Your task to perform on an android device: Clear the shopping cart on costco. Add "logitech g910" to the cart on costco Image 0: 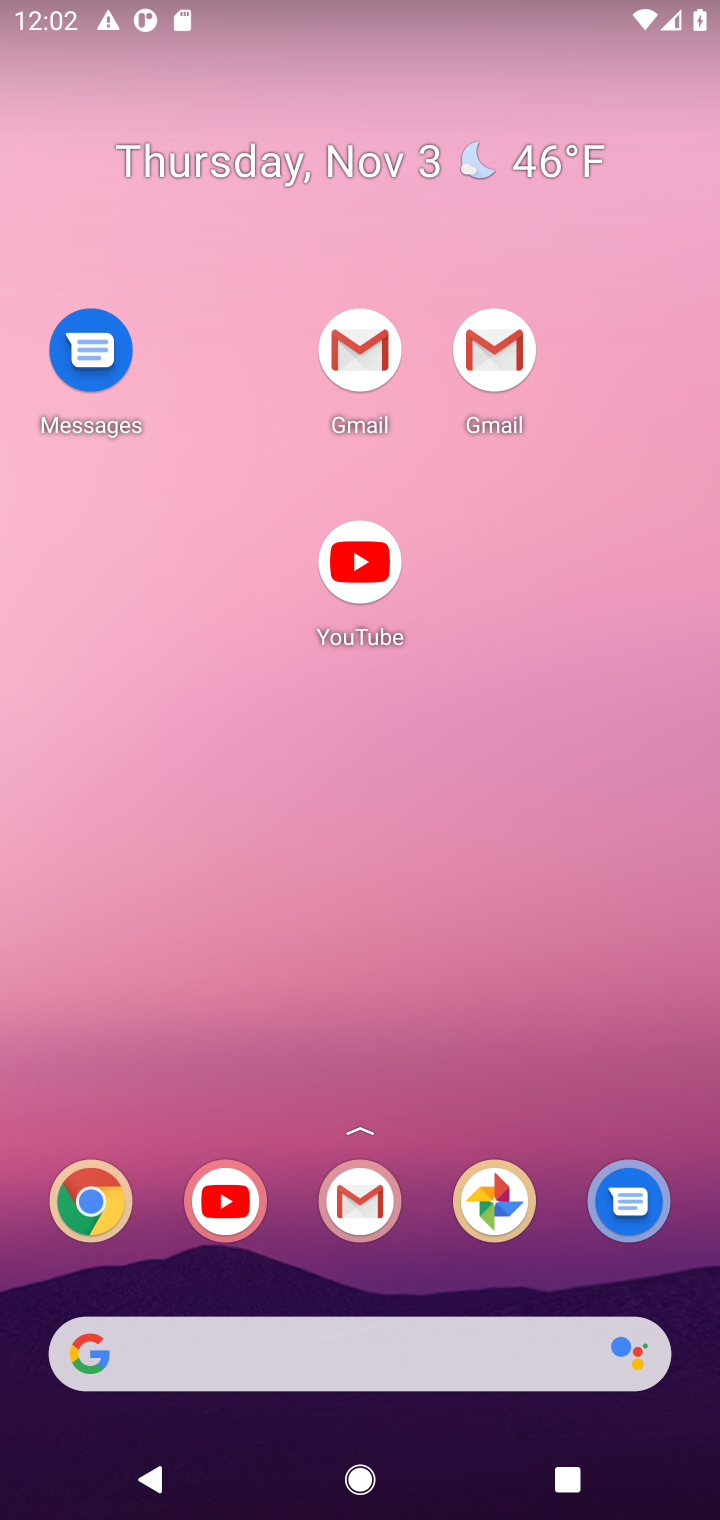
Step 0: drag from (426, 1295) to (546, 306)
Your task to perform on an android device: Clear the shopping cart on costco. Add "logitech g910" to the cart on costco Image 1: 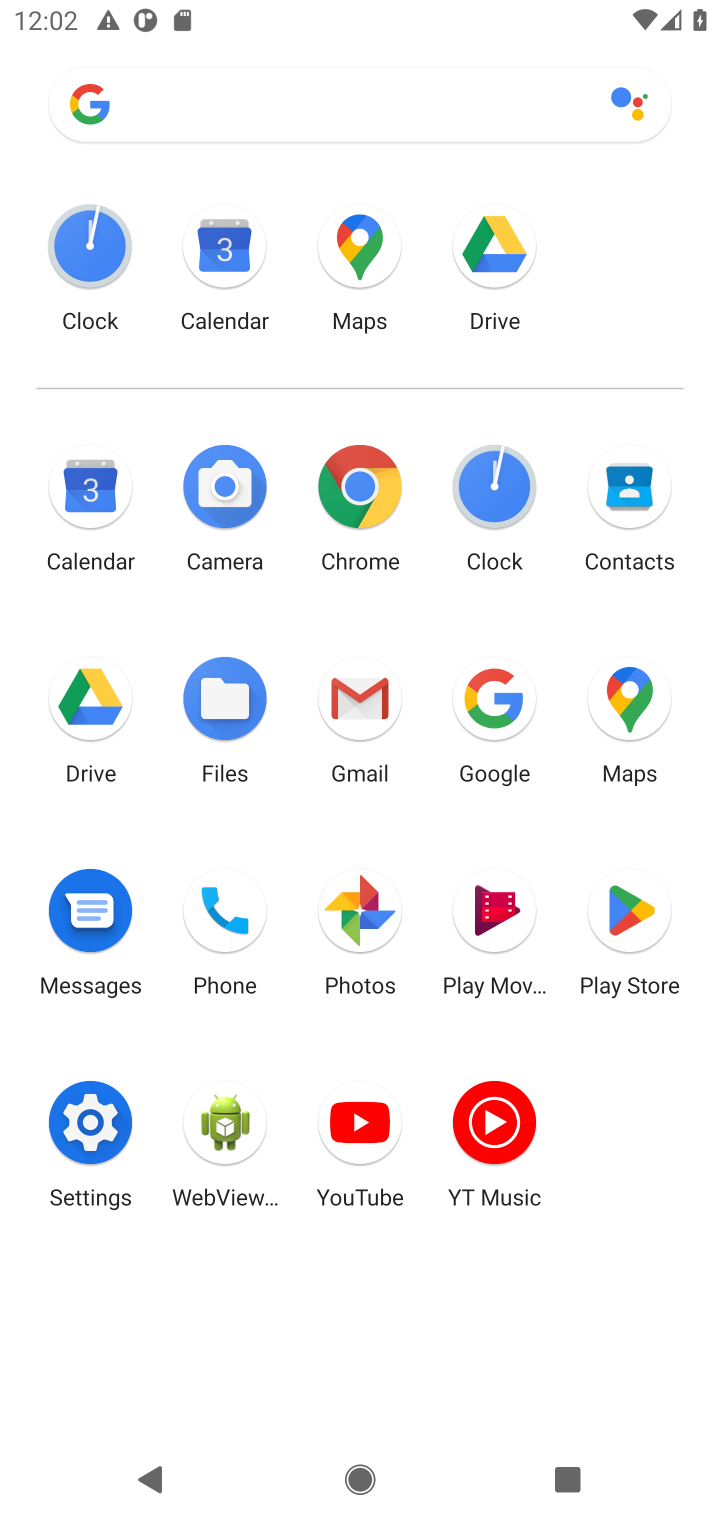
Step 1: click (356, 489)
Your task to perform on an android device: Clear the shopping cart on costco. Add "logitech g910" to the cart on costco Image 2: 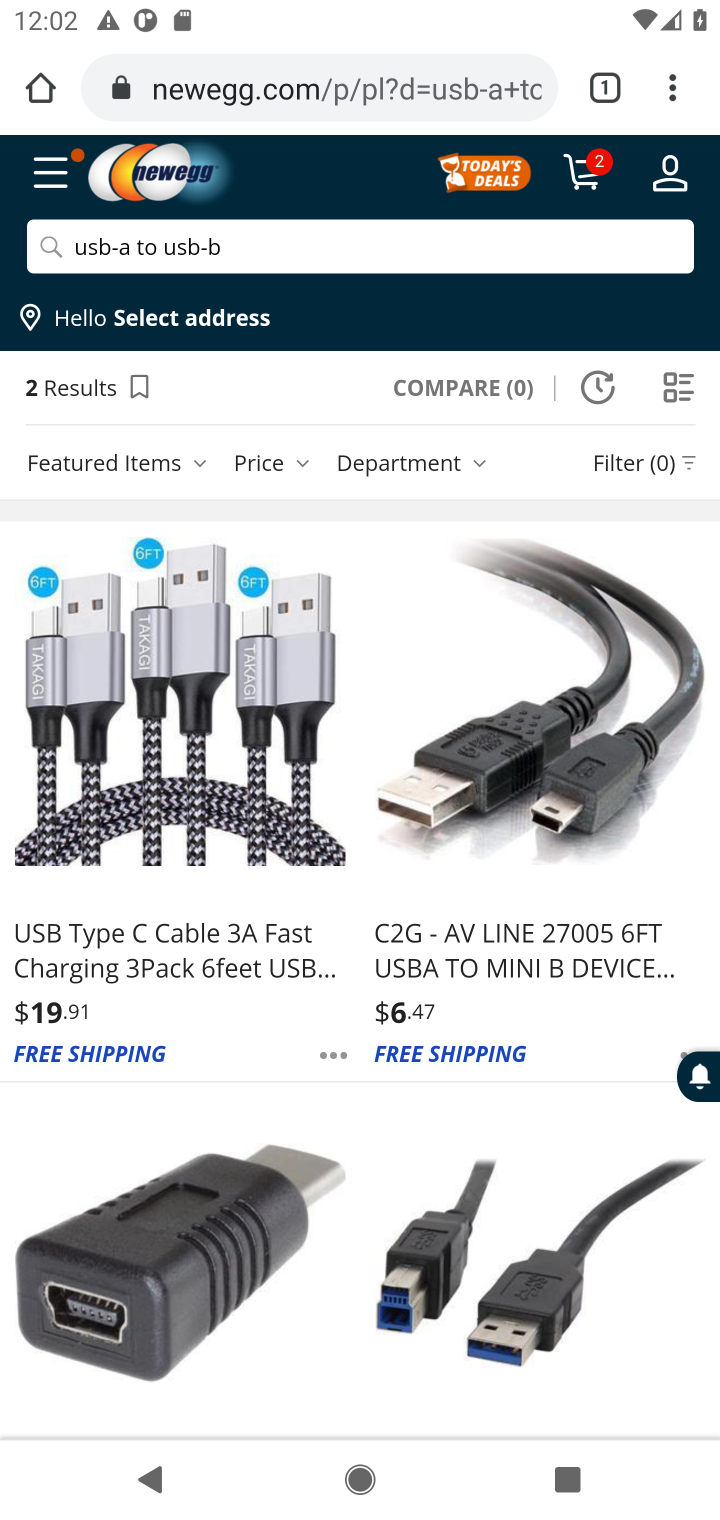
Step 2: click (429, 80)
Your task to perform on an android device: Clear the shopping cart on costco. Add "logitech g910" to the cart on costco Image 3: 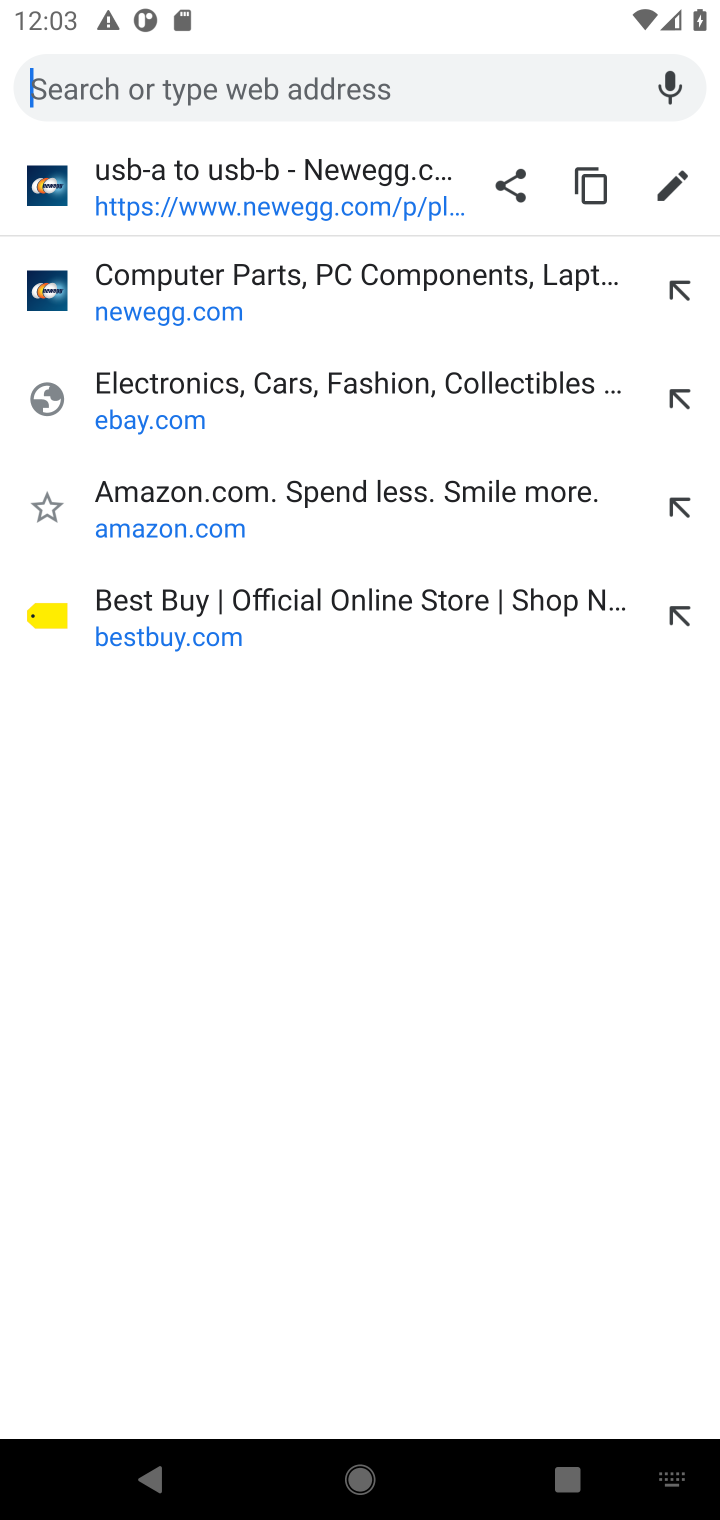
Step 3: type "costco.com"
Your task to perform on an android device: Clear the shopping cart on costco. Add "logitech g910" to the cart on costco Image 4: 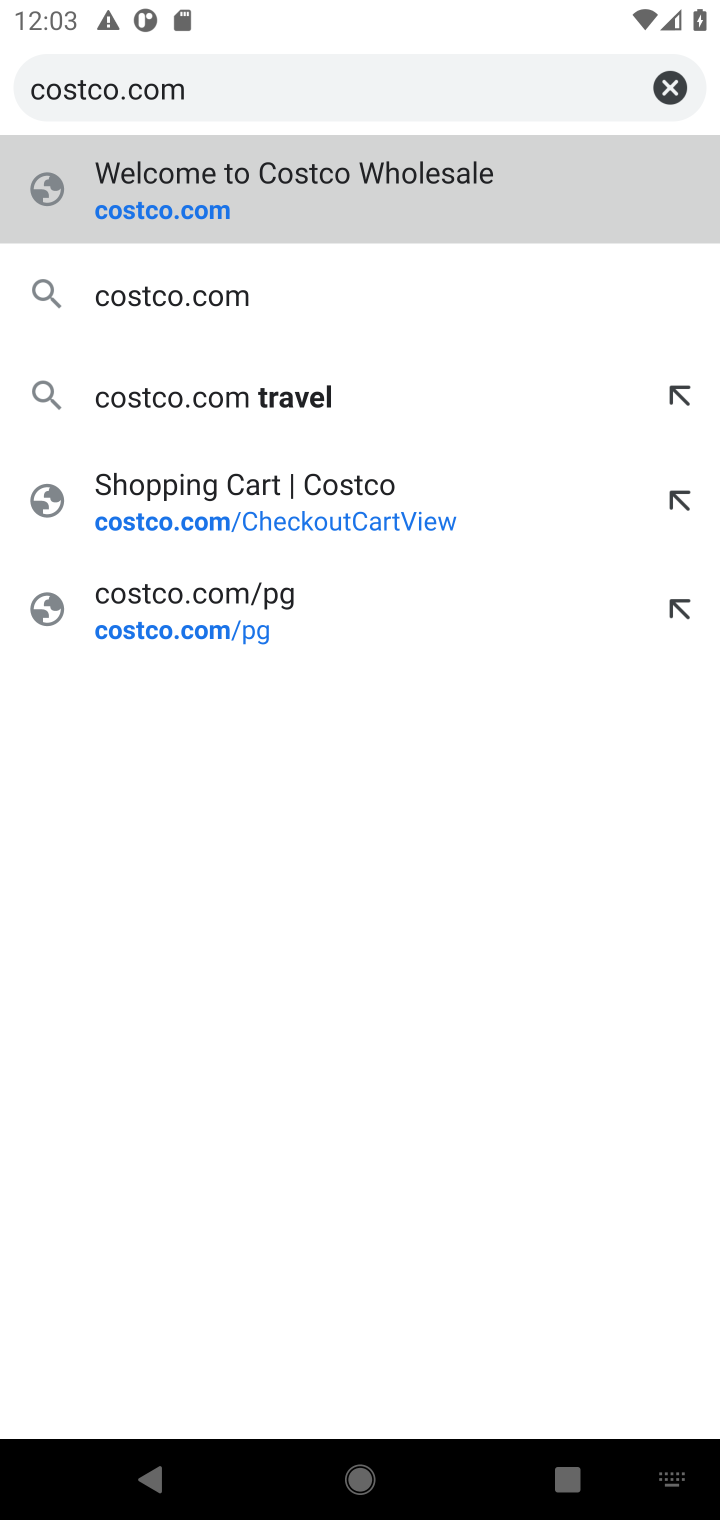
Step 4: press enter
Your task to perform on an android device: Clear the shopping cart on costco. Add "logitech g910" to the cart on costco Image 5: 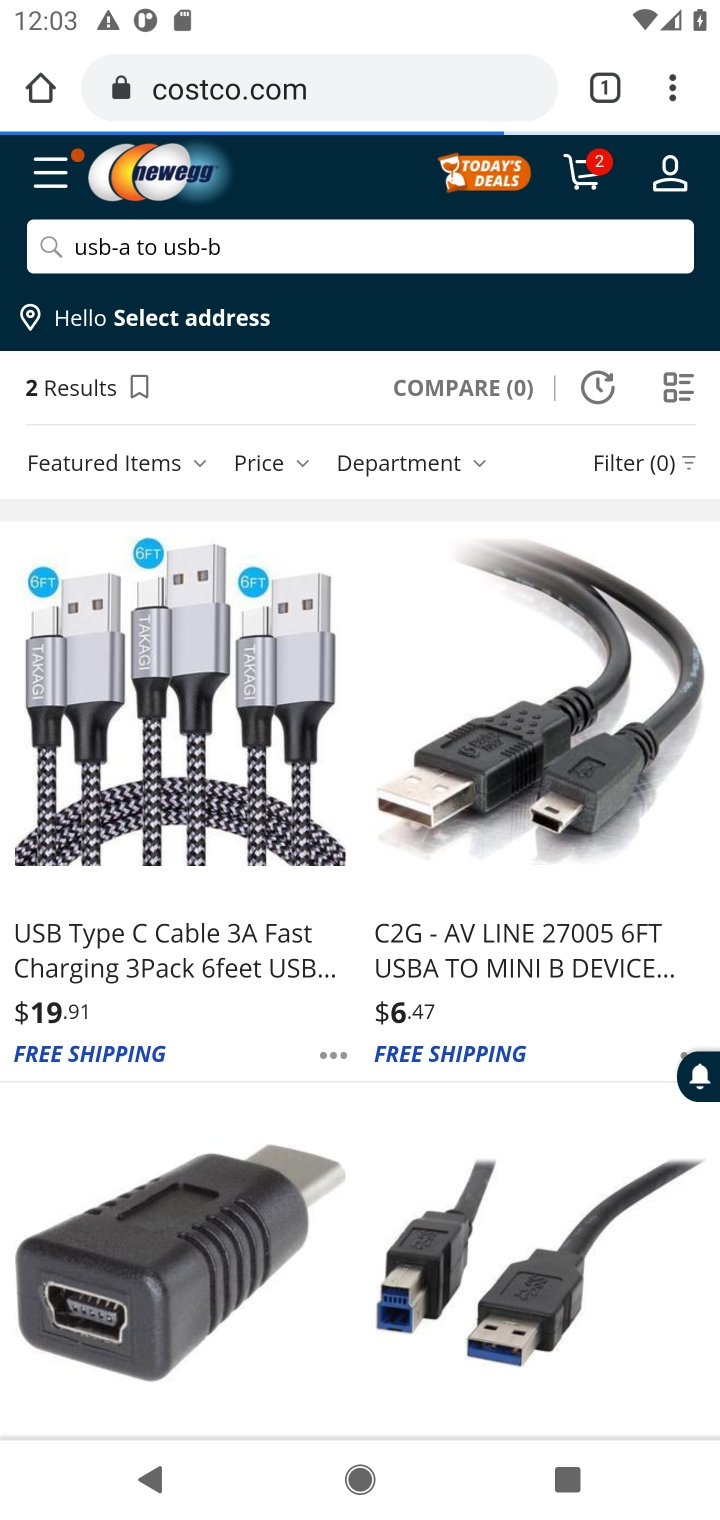
Step 5: press enter
Your task to perform on an android device: Clear the shopping cart on costco. Add "logitech g910" to the cart on costco Image 6: 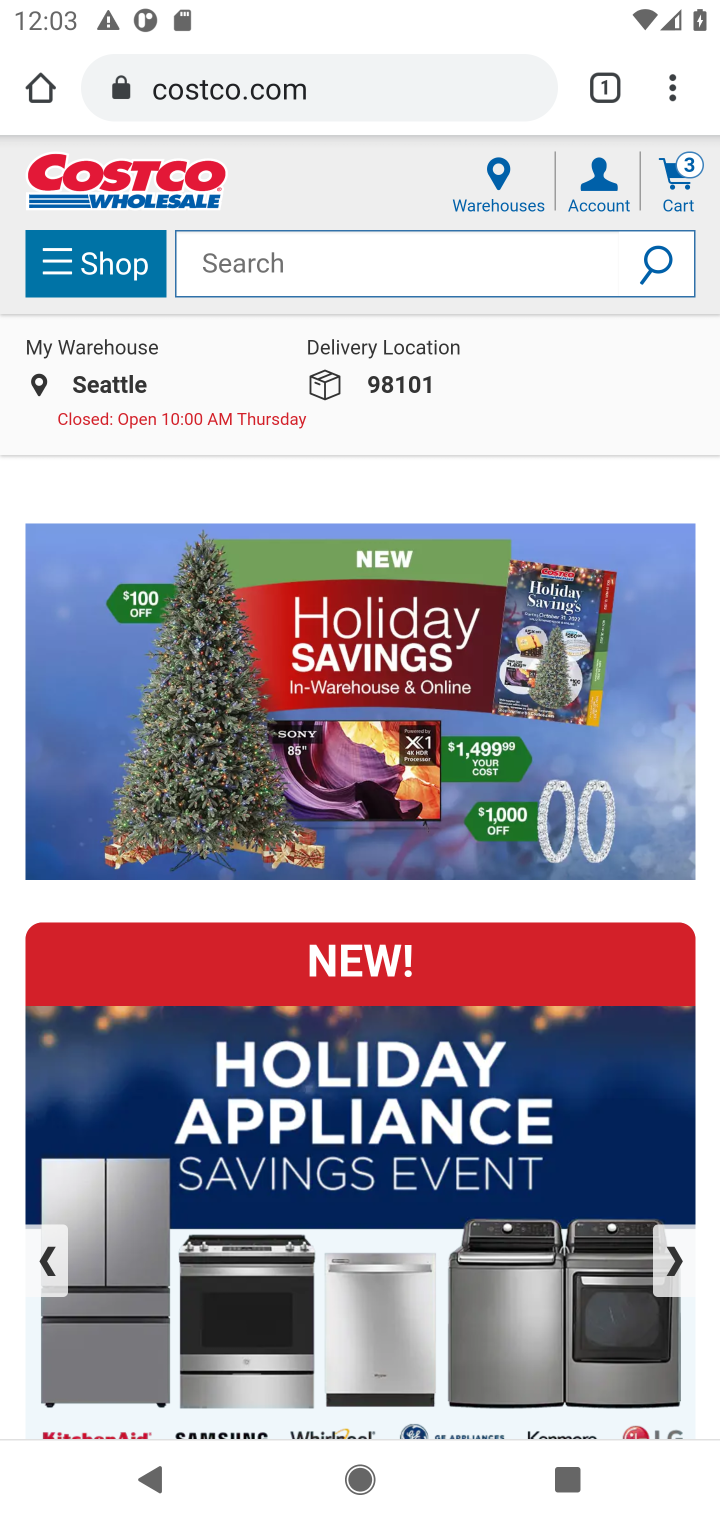
Step 6: click (672, 161)
Your task to perform on an android device: Clear the shopping cart on costco. Add "logitech g910" to the cart on costco Image 7: 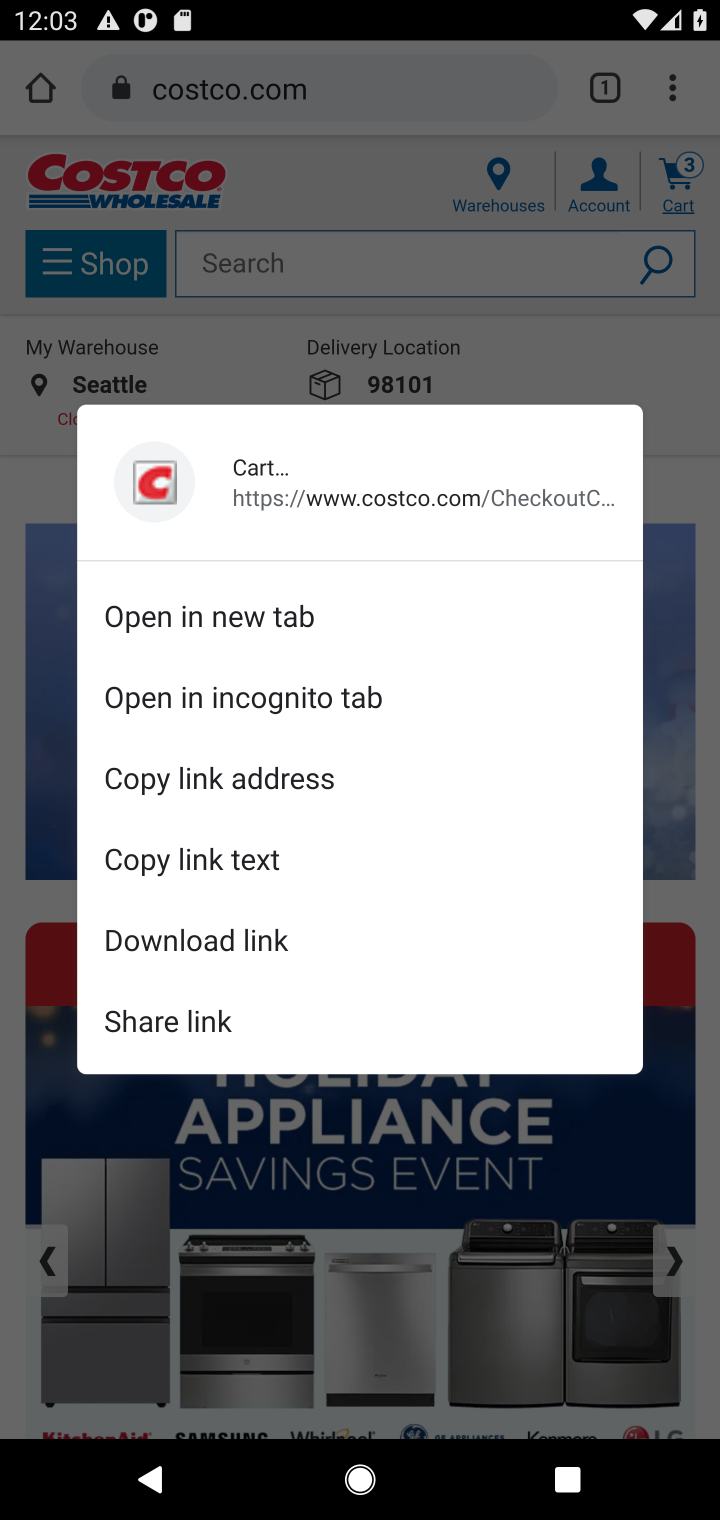
Step 7: click (680, 172)
Your task to perform on an android device: Clear the shopping cart on costco. Add "logitech g910" to the cart on costco Image 8: 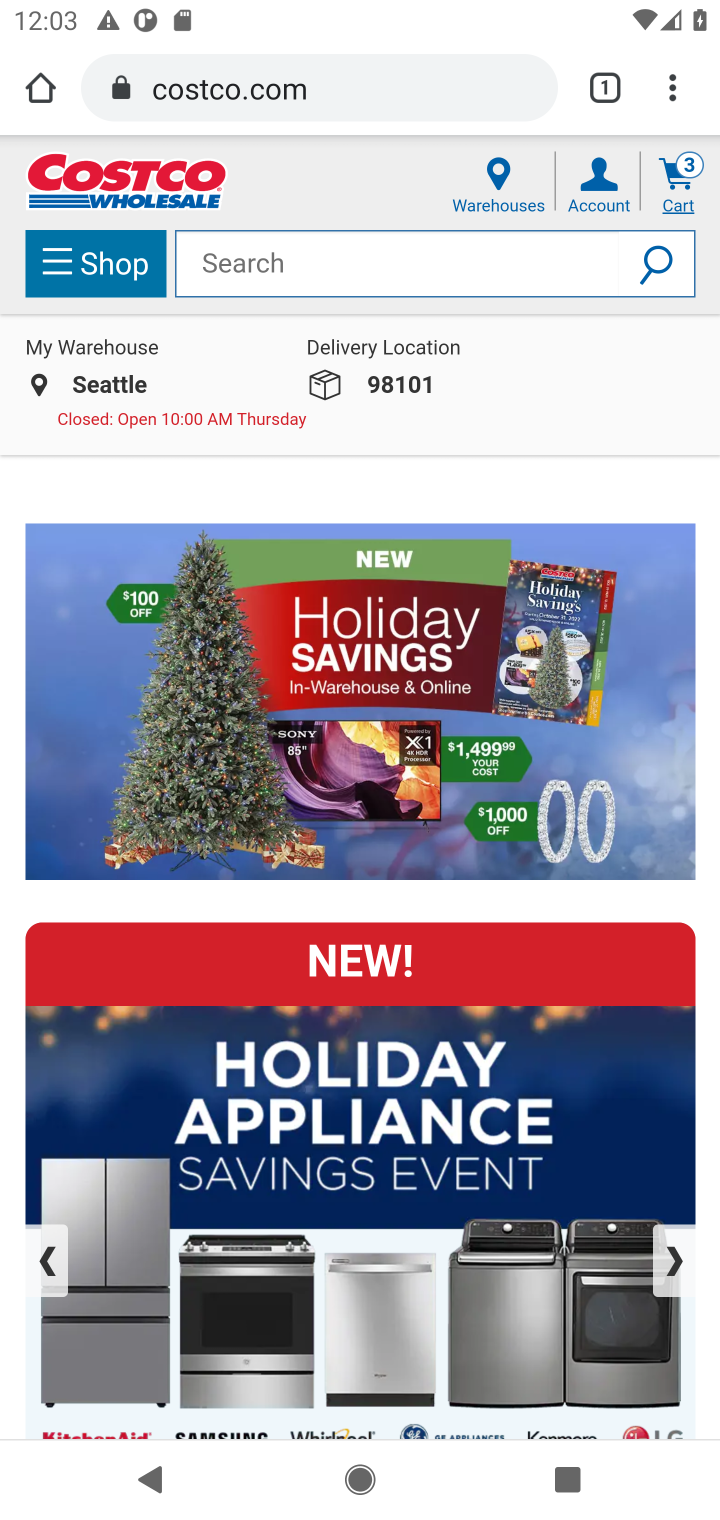
Step 8: click (680, 172)
Your task to perform on an android device: Clear the shopping cart on costco. Add "logitech g910" to the cart on costco Image 9: 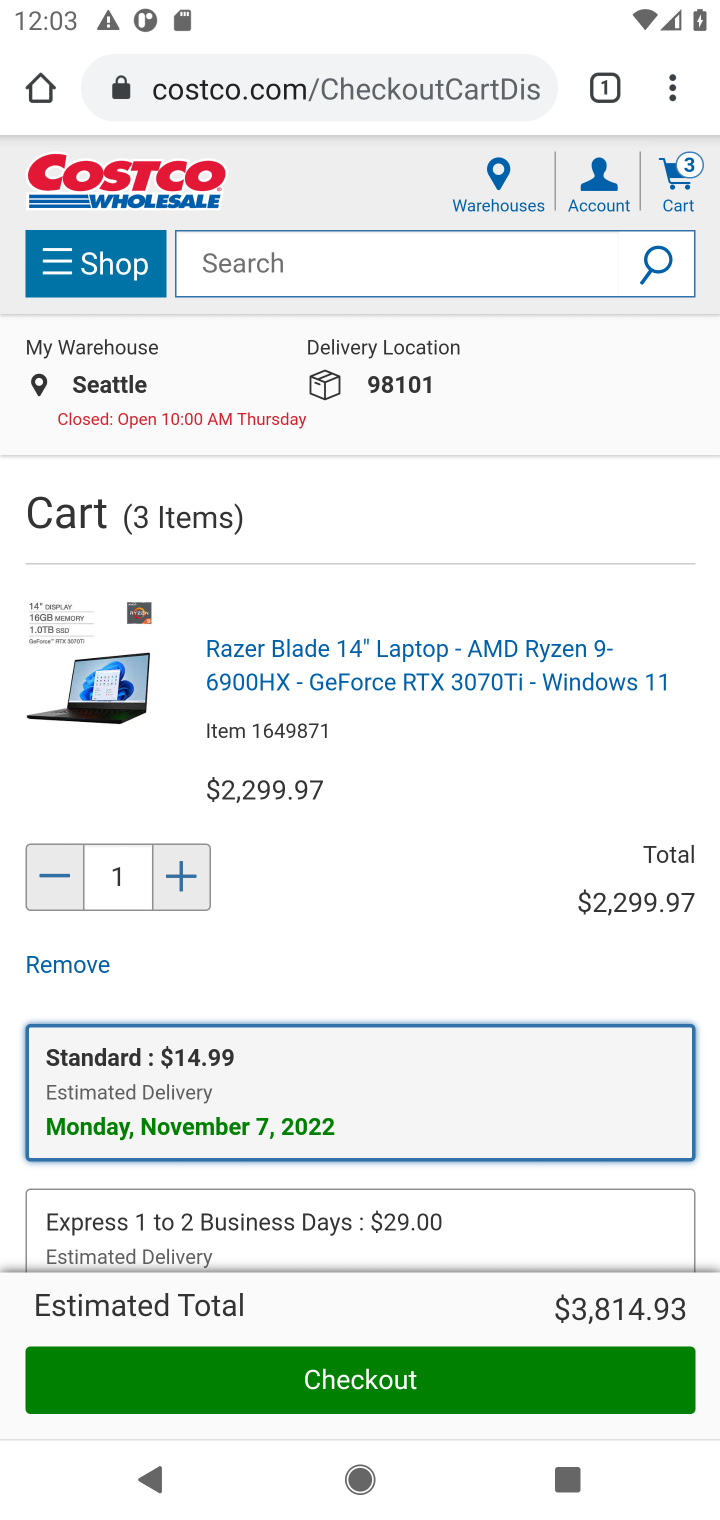
Step 9: click (50, 963)
Your task to perform on an android device: Clear the shopping cart on costco. Add "logitech g910" to the cart on costco Image 10: 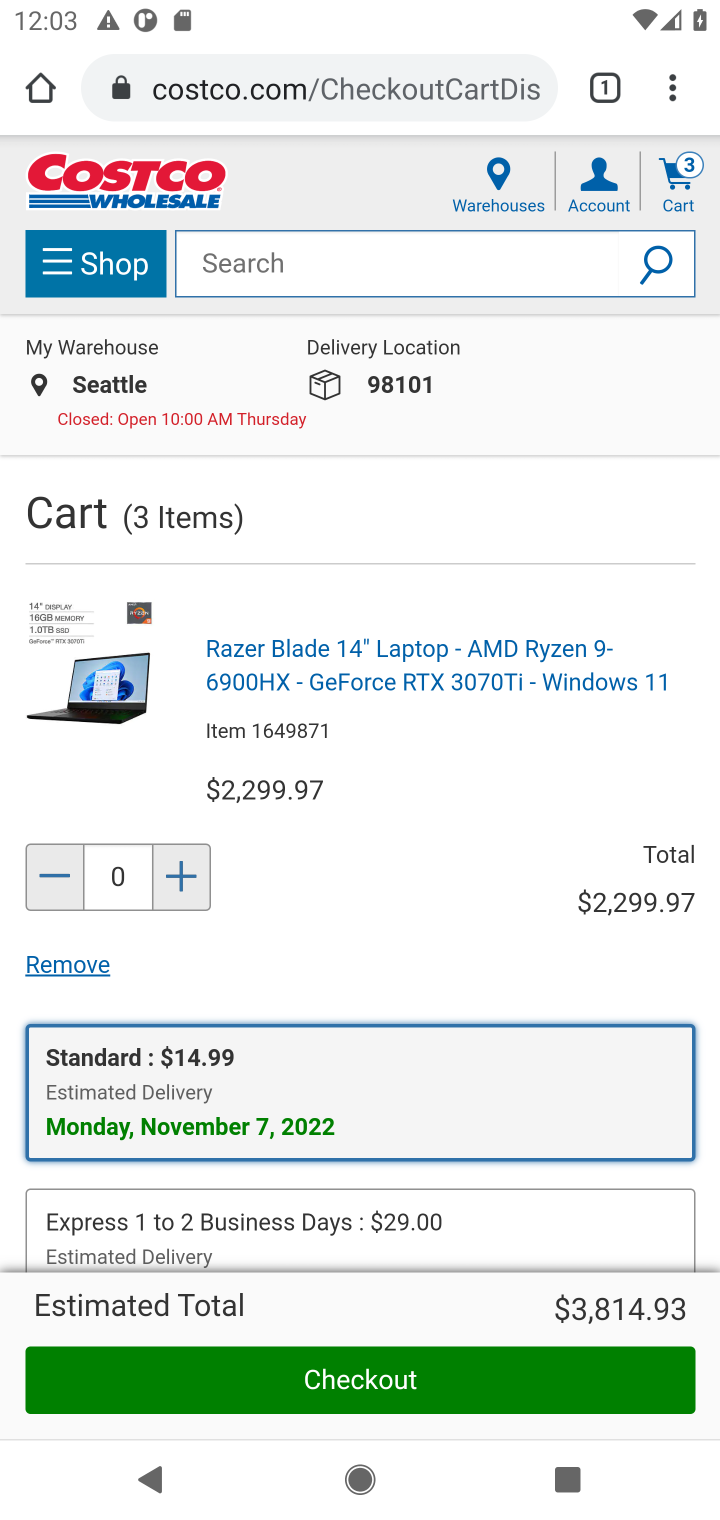
Step 10: click (68, 963)
Your task to perform on an android device: Clear the shopping cart on costco. Add "logitech g910" to the cart on costco Image 11: 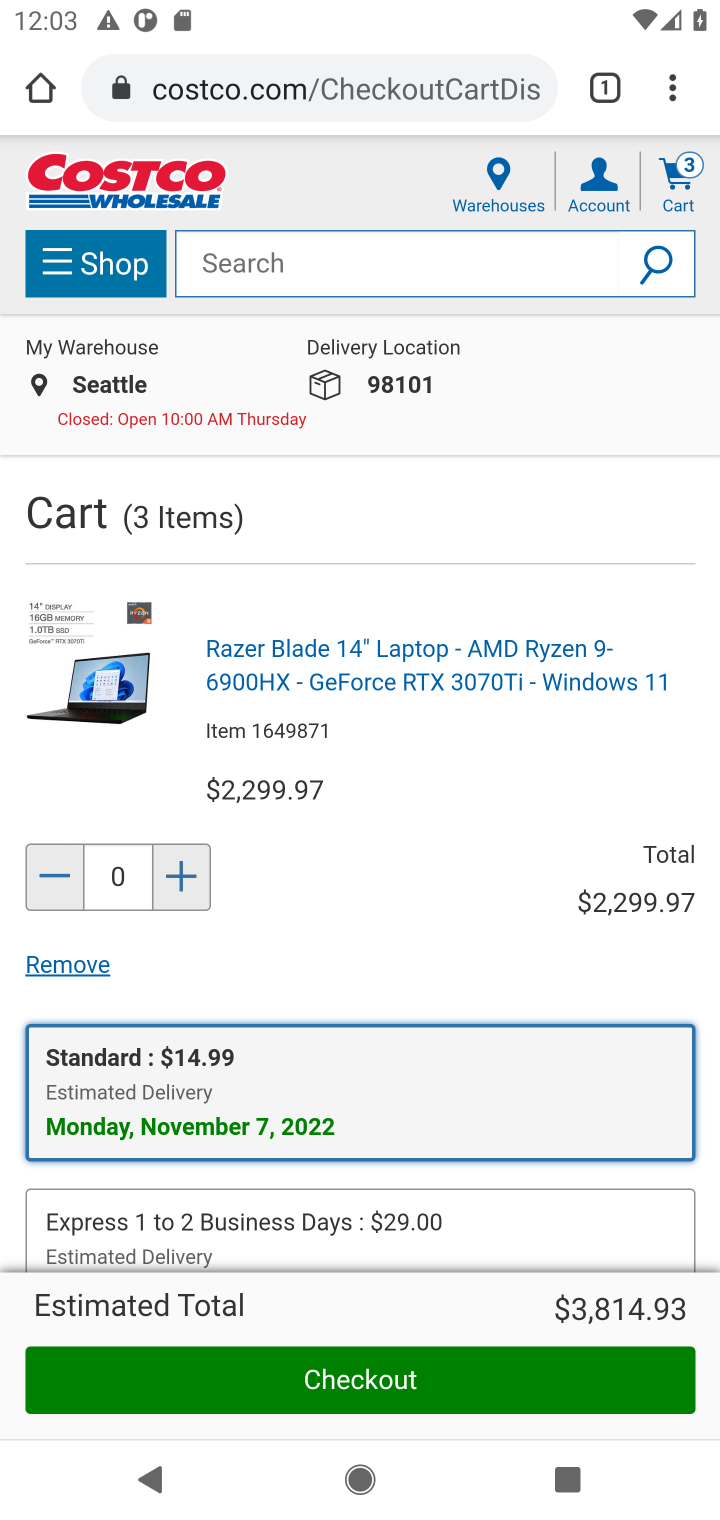
Step 11: drag from (357, 934) to (439, 402)
Your task to perform on an android device: Clear the shopping cart on costco. Add "logitech g910" to the cart on costco Image 12: 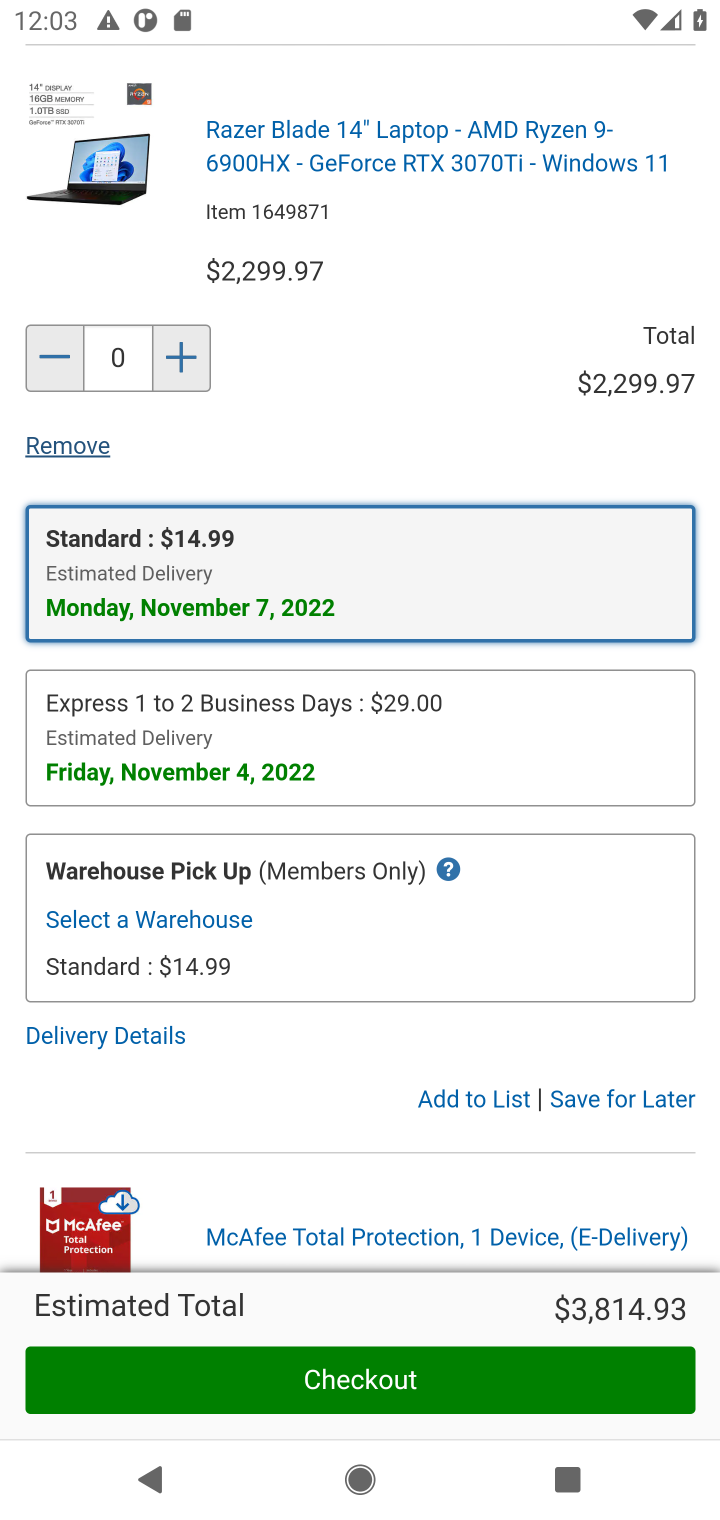
Step 12: drag from (156, 405) to (197, 823)
Your task to perform on an android device: Clear the shopping cart on costco. Add "logitech g910" to the cart on costco Image 13: 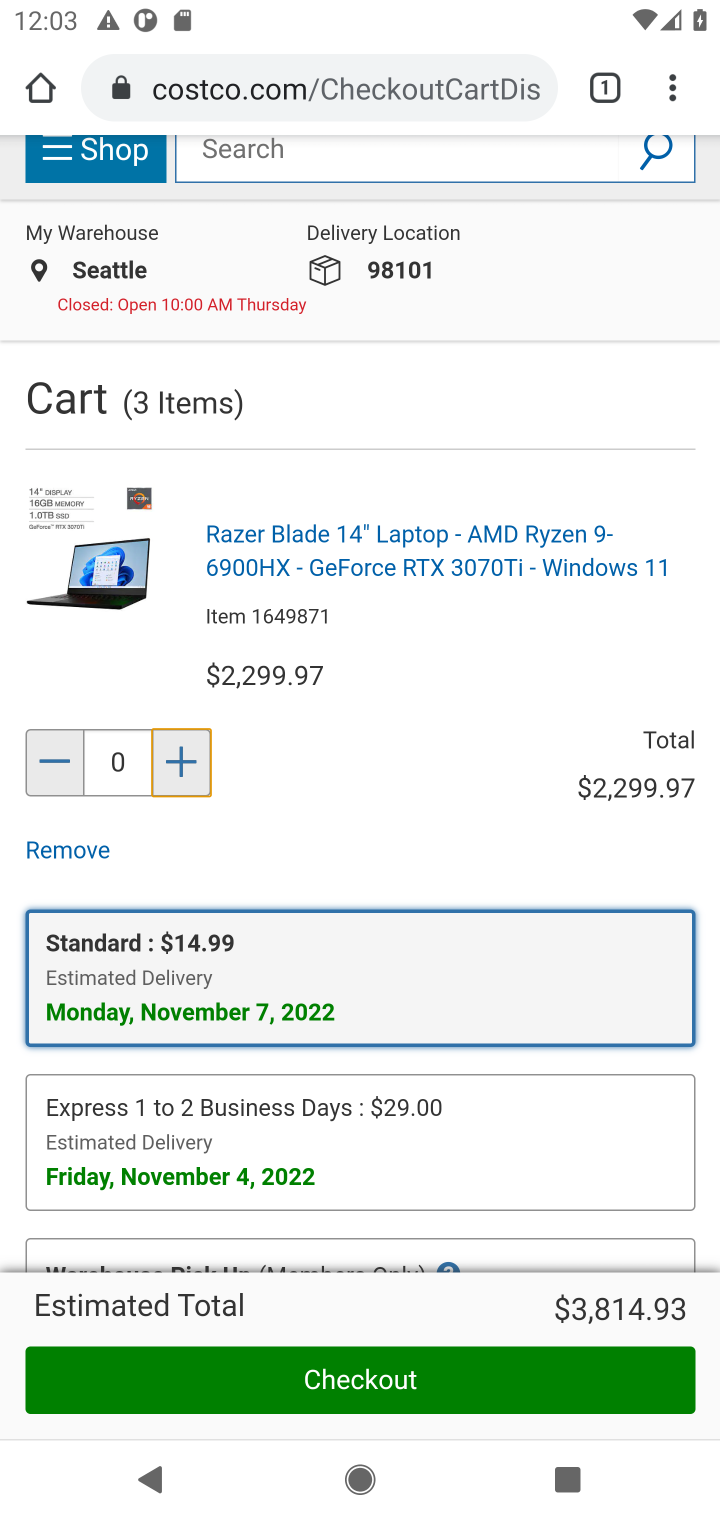
Step 13: click (83, 867)
Your task to perform on an android device: Clear the shopping cart on costco. Add "logitech g910" to the cart on costco Image 14: 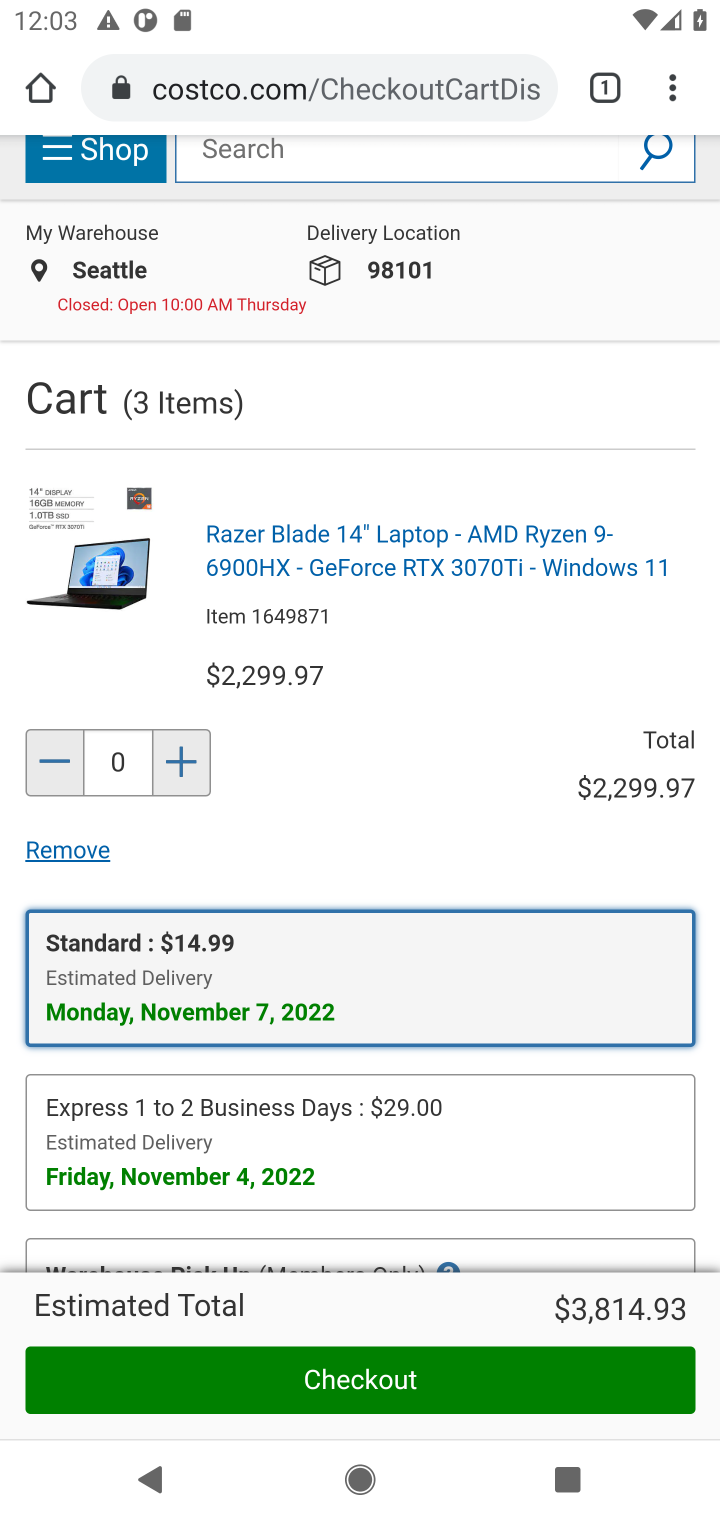
Step 14: click (83, 867)
Your task to perform on an android device: Clear the shopping cart on costco. Add "logitech g910" to the cart on costco Image 15: 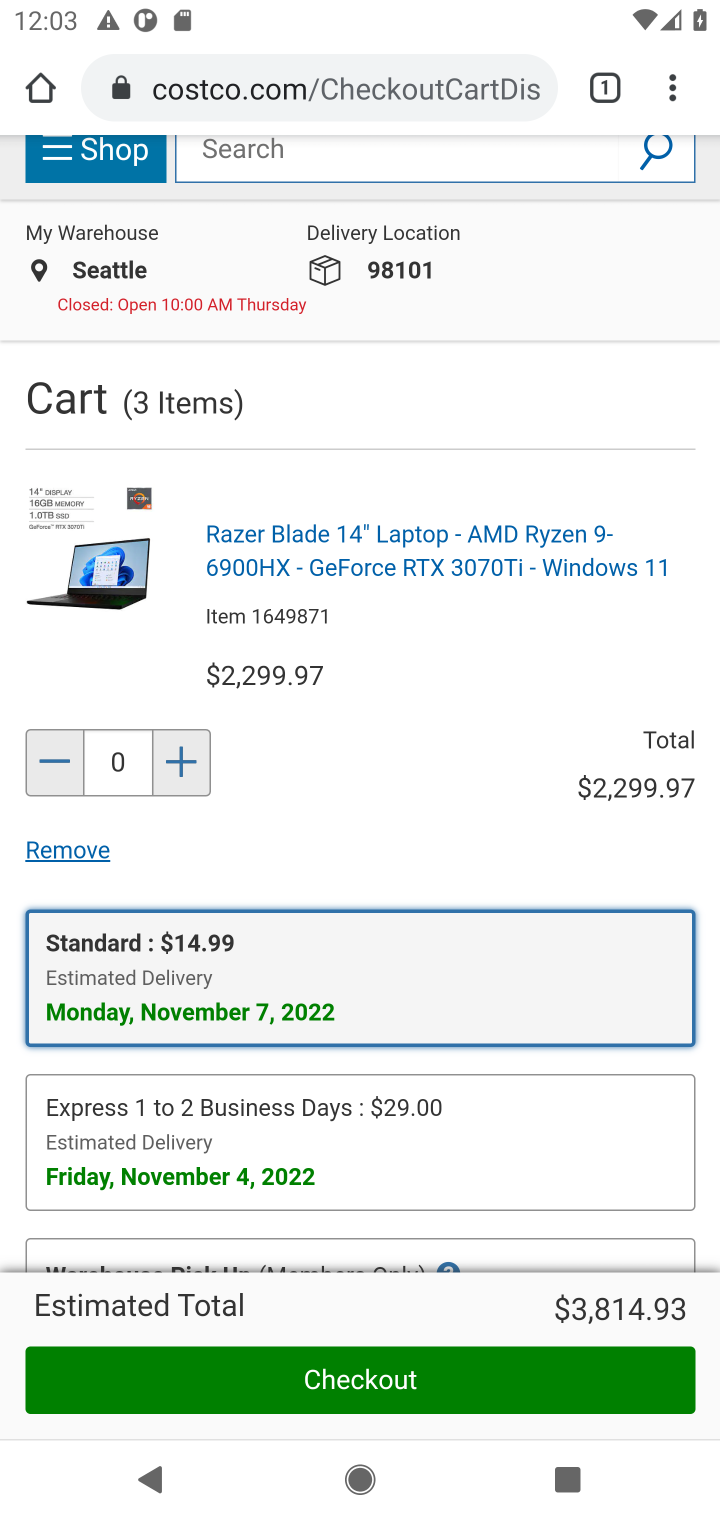
Step 15: click (83, 867)
Your task to perform on an android device: Clear the shopping cart on costco. Add "logitech g910" to the cart on costco Image 16: 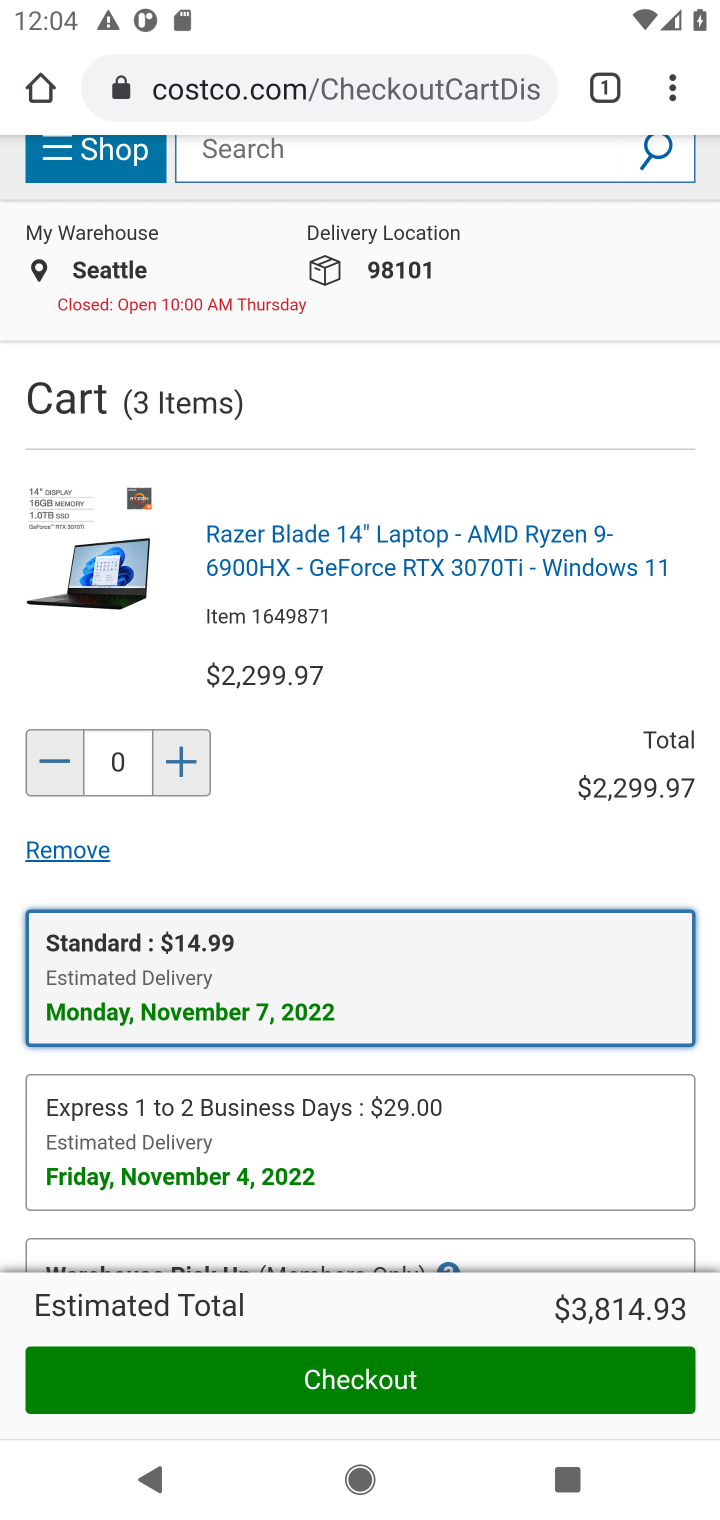
Step 16: click (83, 851)
Your task to perform on an android device: Clear the shopping cart on costco. Add "logitech g910" to the cart on costco Image 17: 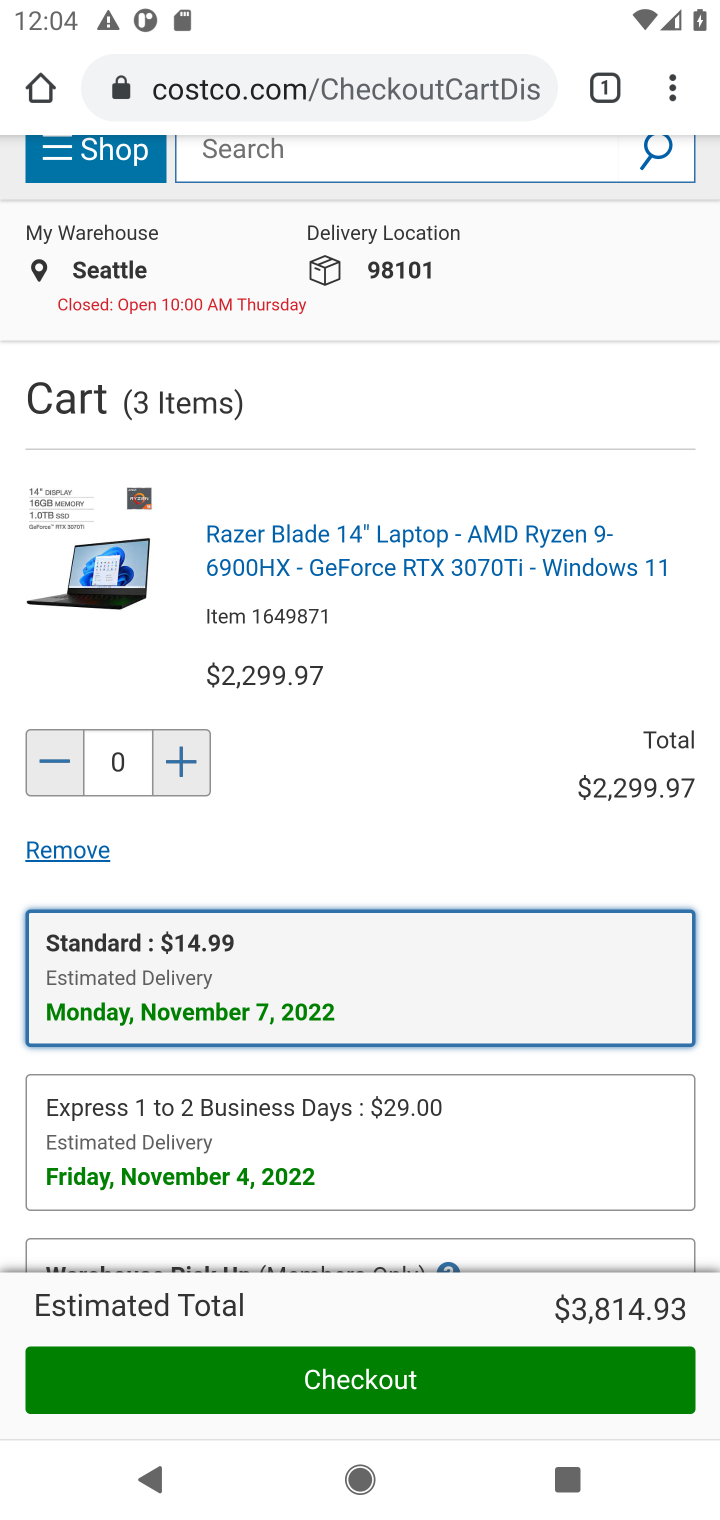
Step 17: task complete